Your task to perform on an android device: What's on my calendar tomorrow? Image 0: 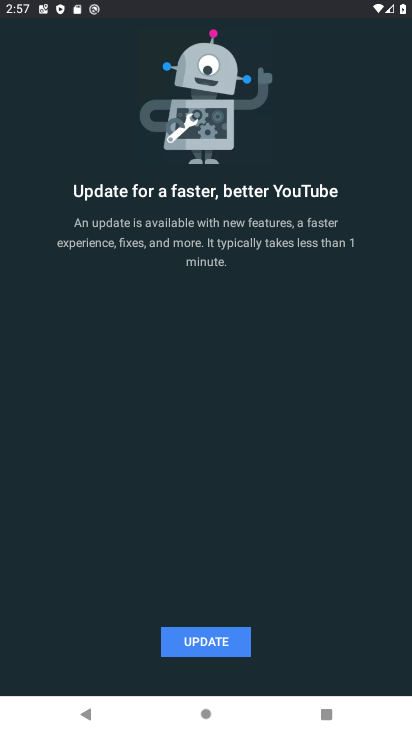
Step 0: press home button
Your task to perform on an android device: What's on my calendar tomorrow? Image 1: 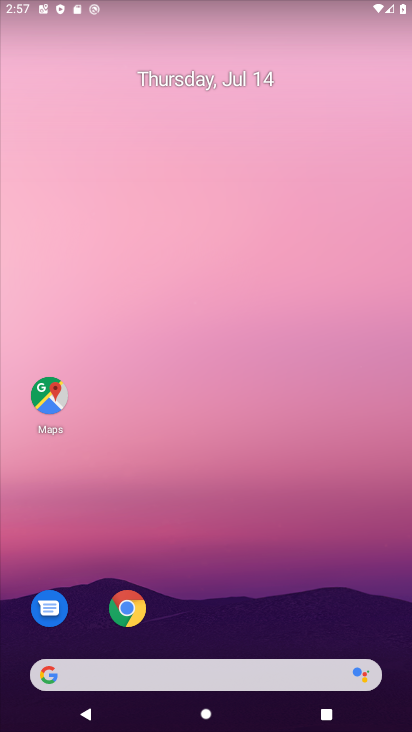
Step 1: drag from (36, 531) to (279, 150)
Your task to perform on an android device: What's on my calendar tomorrow? Image 2: 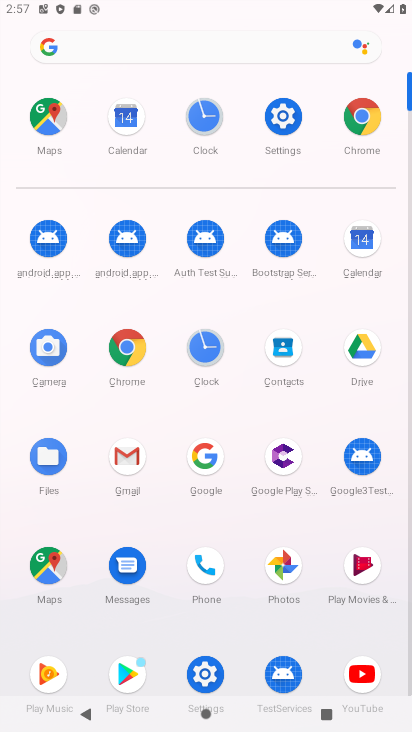
Step 2: click (364, 254)
Your task to perform on an android device: What's on my calendar tomorrow? Image 3: 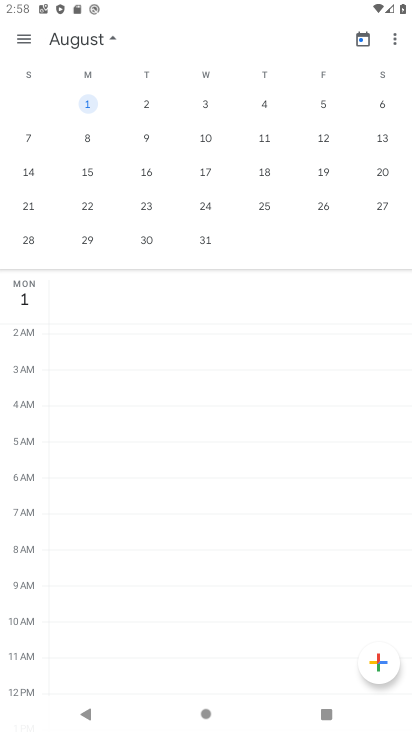
Step 3: drag from (18, 200) to (392, 170)
Your task to perform on an android device: What's on my calendar tomorrow? Image 4: 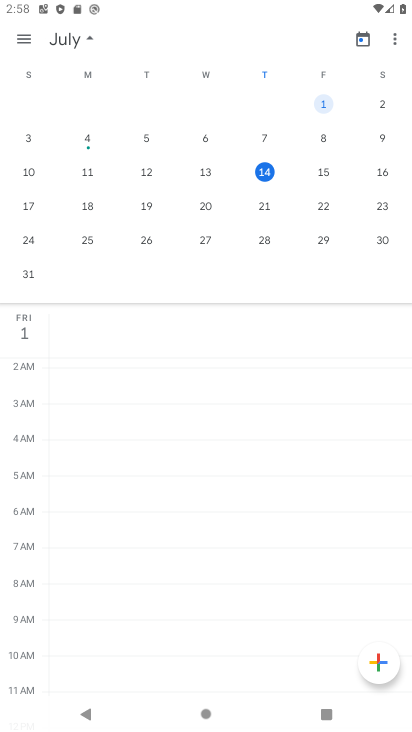
Step 4: click (315, 174)
Your task to perform on an android device: What's on my calendar tomorrow? Image 5: 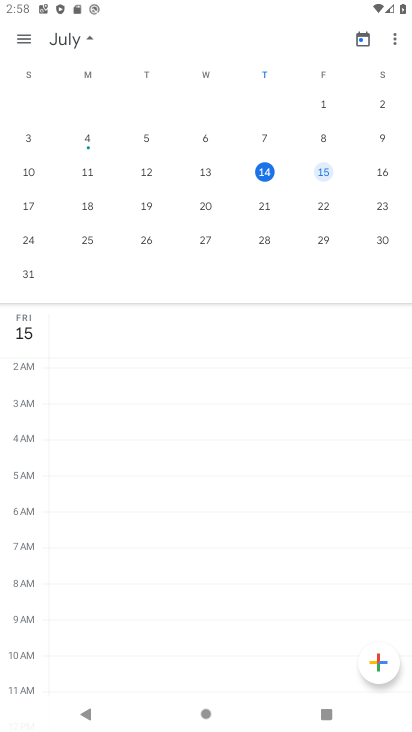
Step 5: task complete